Your task to perform on an android device: Go to Amazon Image 0: 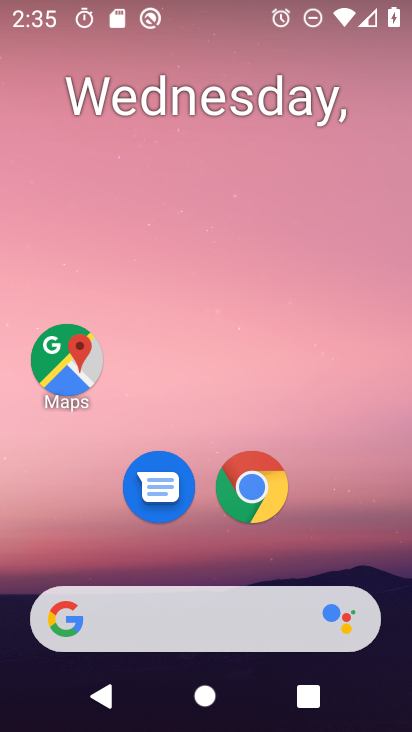
Step 0: click (249, 495)
Your task to perform on an android device: Go to Amazon Image 1: 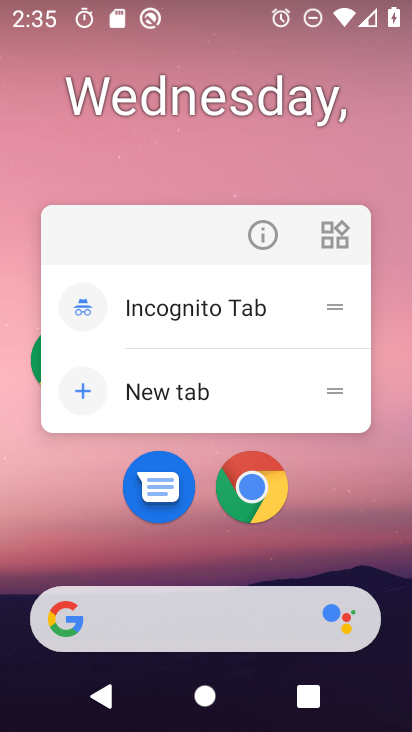
Step 1: click (261, 483)
Your task to perform on an android device: Go to Amazon Image 2: 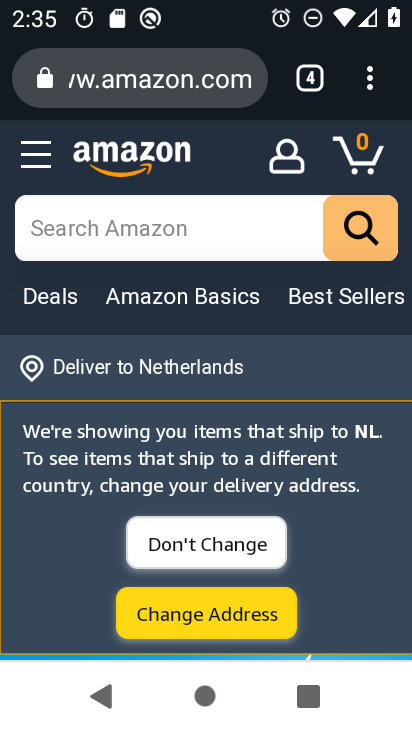
Step 2: task complete